Your task to perform on an android device: visit the assistant section in the google photos Image 0: 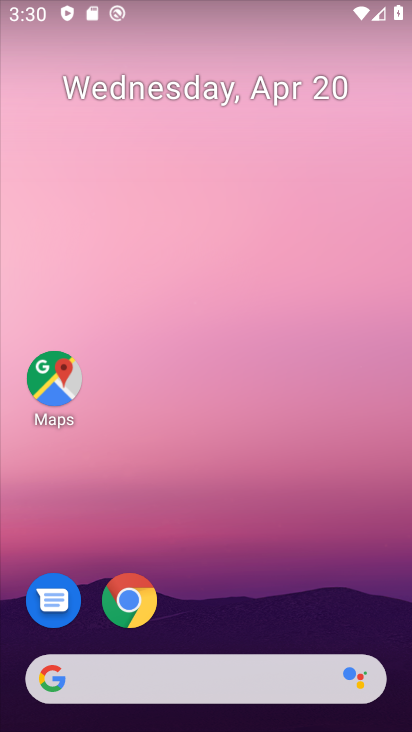
Step 0: drag from (227, 553) to (276, 120)
Your task to perform on an android device: visit the assistant section in the google photos Image 1: 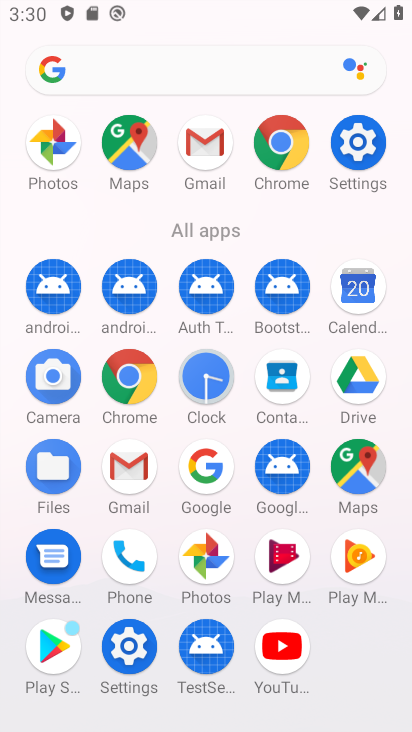
Step 1: click (61, 155)
Your task to perform on an android device: visit the assistant section in the google photos Image 2: 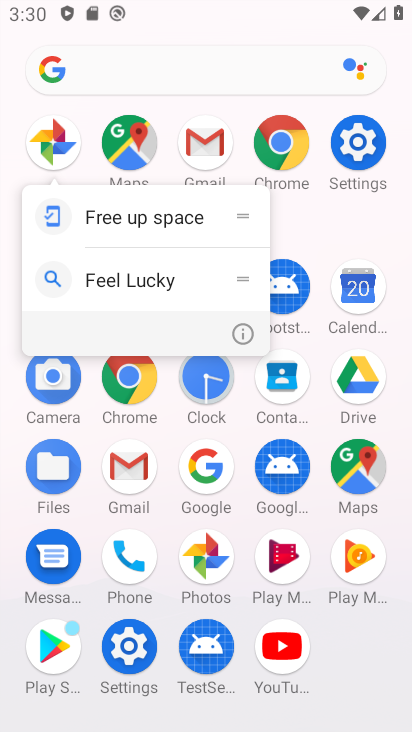
Step 2: click (67, 145)
Your task to perform on an android device: visit the assistant section in the google photos Image 3: 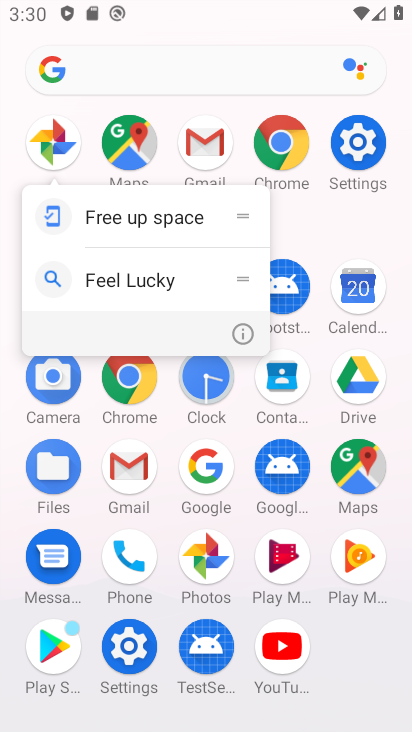
Step 3: click (200, 557)
Your task to perform on an android device: visit the assistant section in the google photos Image 4: 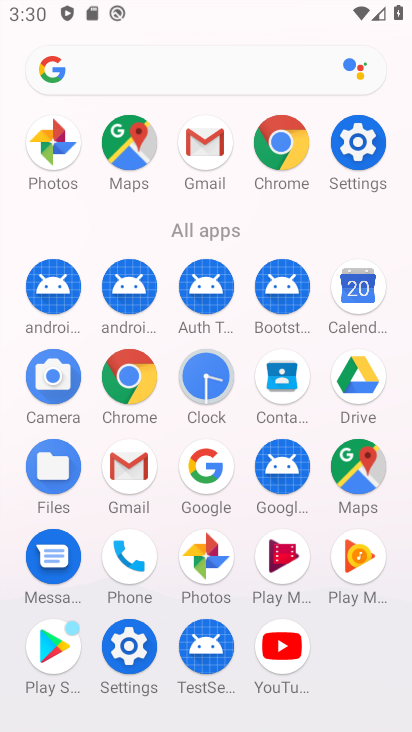
Step 4: click (205, 553)
Your task to perform on an android device: visit the assistant section in the google photos Image 5: 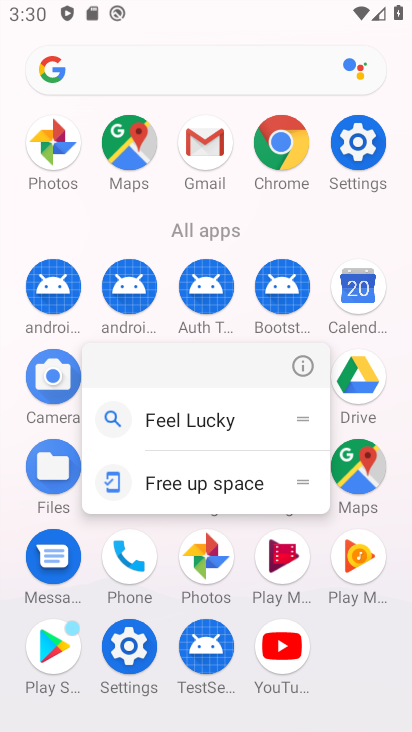
Step 5: click (205, 553)
Your task to perform on an android device: visit the assistant section in the google photos Image 6: 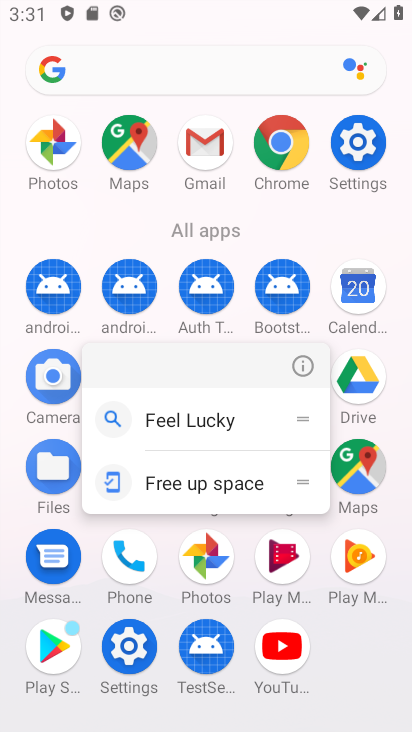
Step 6: click (203, 551)
Your task to perform on an android device: visit the assistant section in the google photos Image 7: 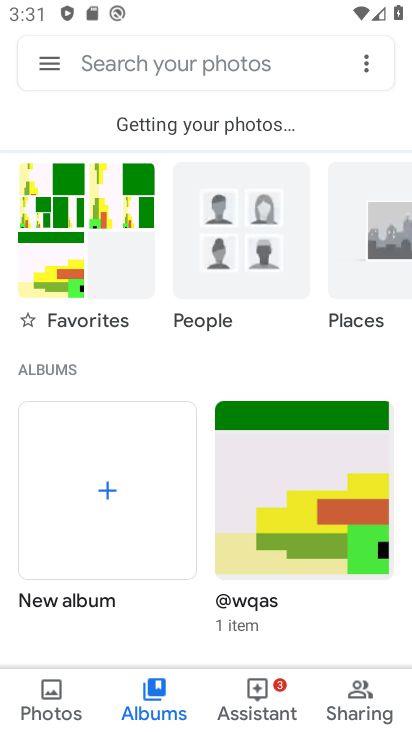
Step 7: click (38, 66)
Your task to perform on an android device: visit the assistant section in the google photos Image 8: 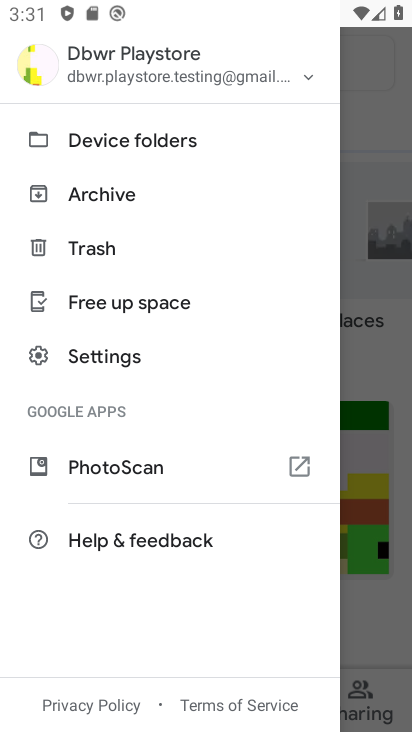
Step 8: click (381, 114)
Your task to perform on an android device: visit the assistant section in the google photos Image 9: 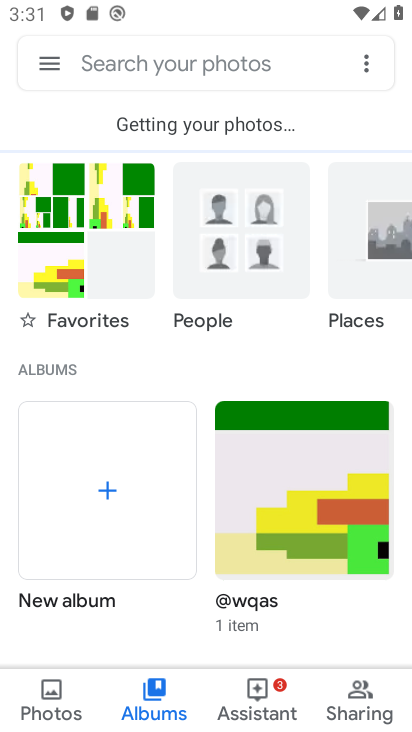
Step 9: click (253, 700)
Your task to perform on an android device: visit the assistant section in the google photos Image 10: 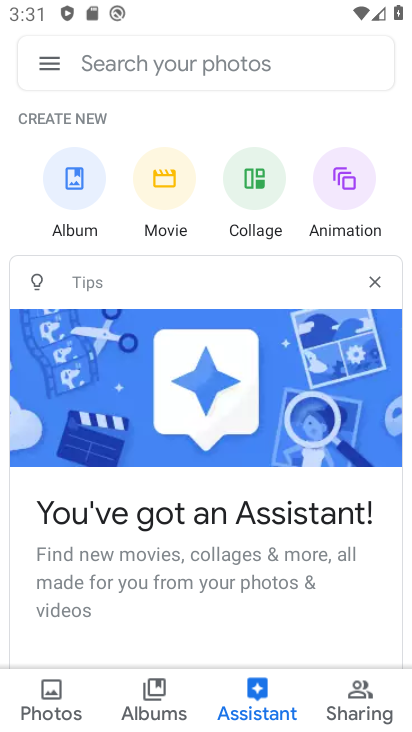
Step 10: task complete